Your task to perform on an android device: Open settings on Google Maps Image 0: 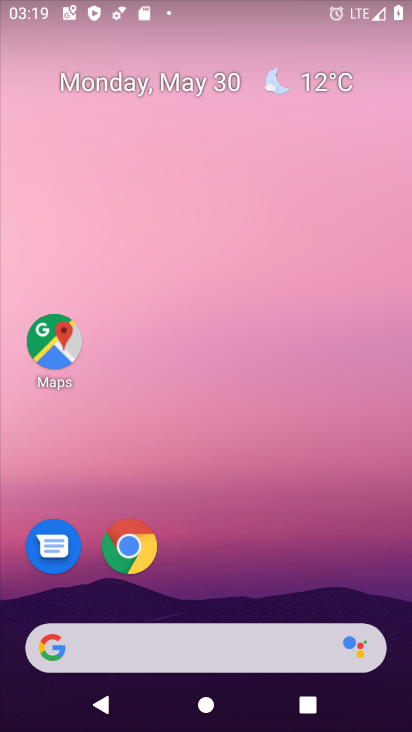
Step 0: click (55, 341)
Your task to perform on an android device: Open settings on Google Maps Image 1: 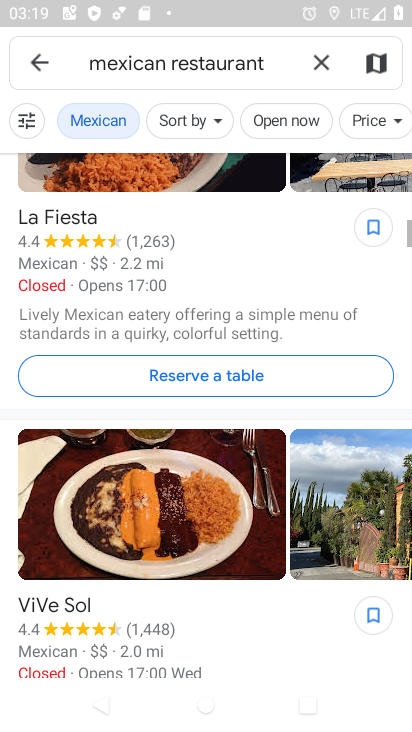
Step 1: click (321, 66)
Your task to perform on an android device: Open settings on Google Maps Image 2: 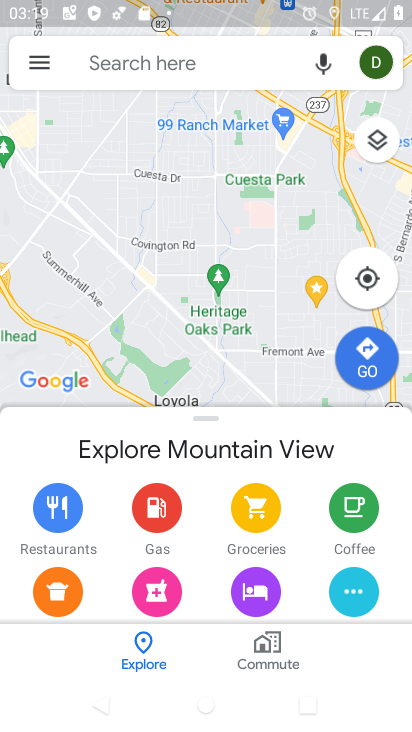
Step 2: click (37, 39)
Your task to perform on an android device: Open settings on Google Maps Image 3: 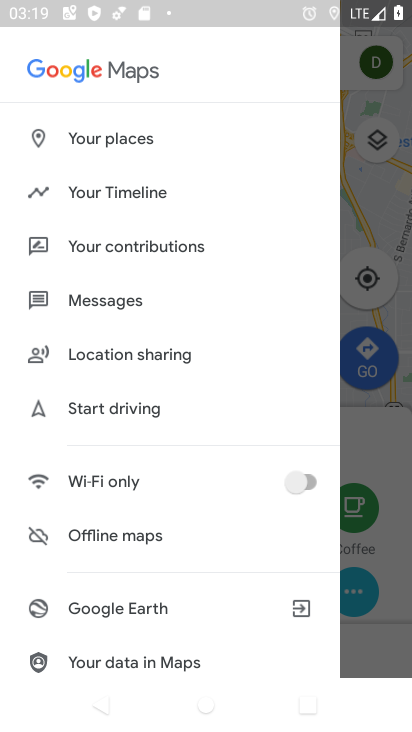
Step 3: drag from (197, 654) to (189, 204)
Your task to perform on an android device: Open settings on Google Maps Image 4: 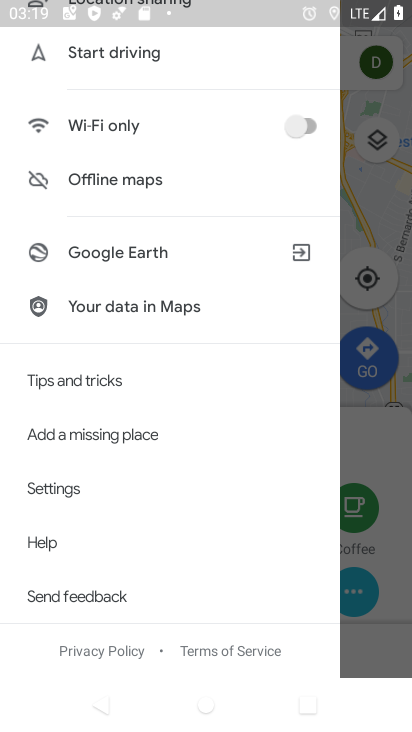
Step 4: click (86, 489)
Your task to perform on an android device: Open settings on Google Maps Image 5: 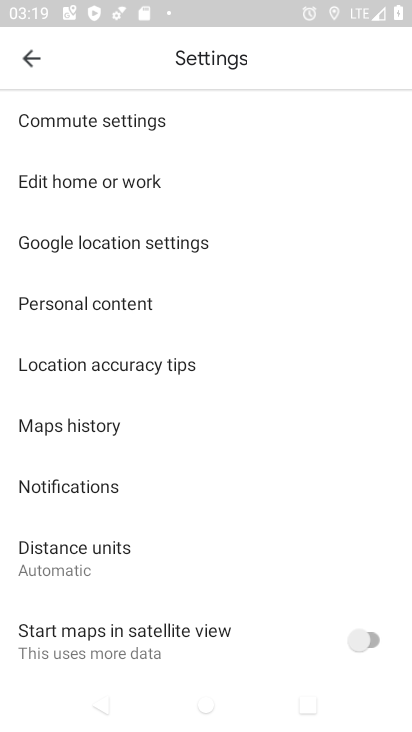
Step 5: task complete